Your task to perform on an android device: turn off picture-in-picture Image 0: 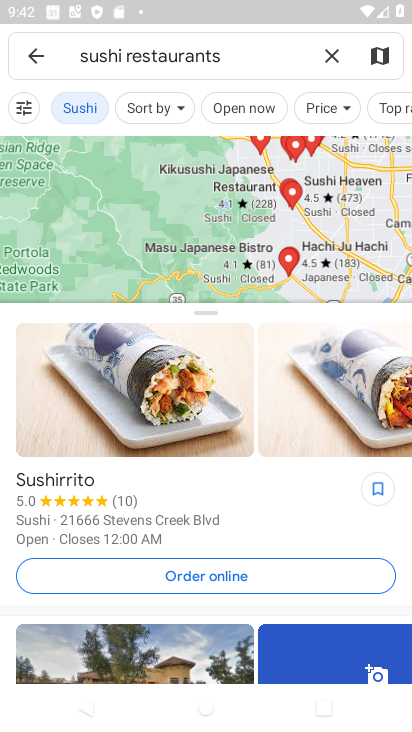
Step 0: press home button
Your task to perform on an android device: turn off picture-in-picture Image 1: 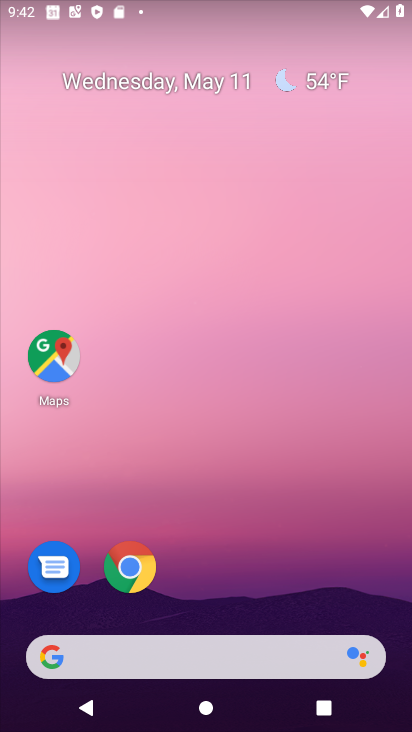
Step 1: click (143, 567)
Your task to perform on an android device: turn off picture-in-picture Image 2: 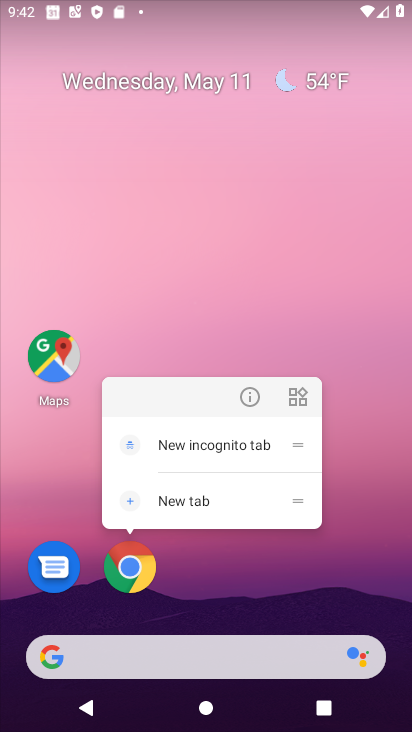
Step 2: click (246, 395)
Your task to perform on an android device: turn off picture-in-picture Image 3: 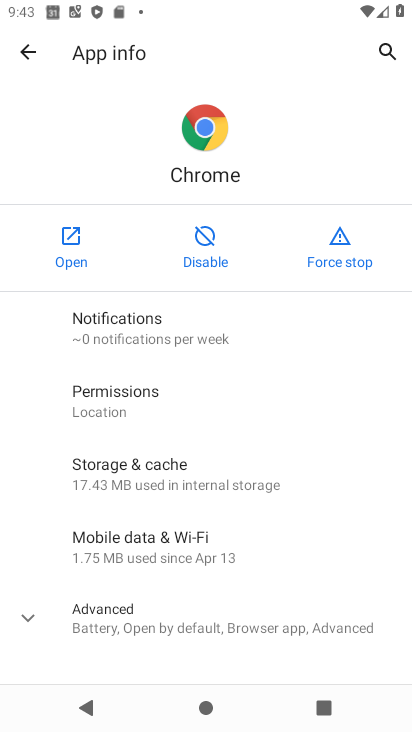
Step 3: click (113, 634)
Your task to perform on an android device: turn off picture-in-picture Image 4: 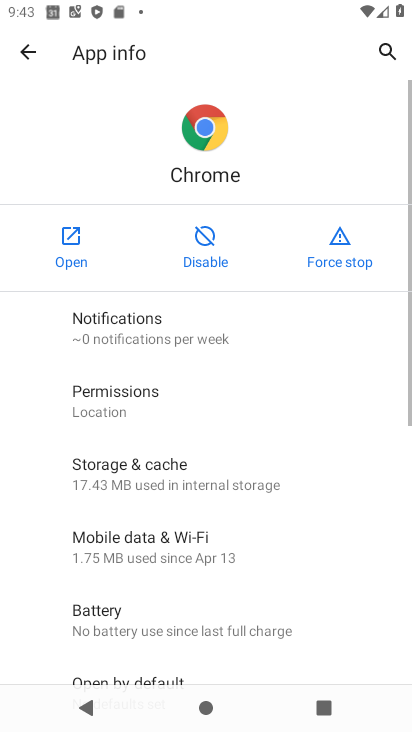
Step 4: drag from (135, 587) to (234, 134)
Your task to perform on an android device: turn off picture-in-picture Image 5: 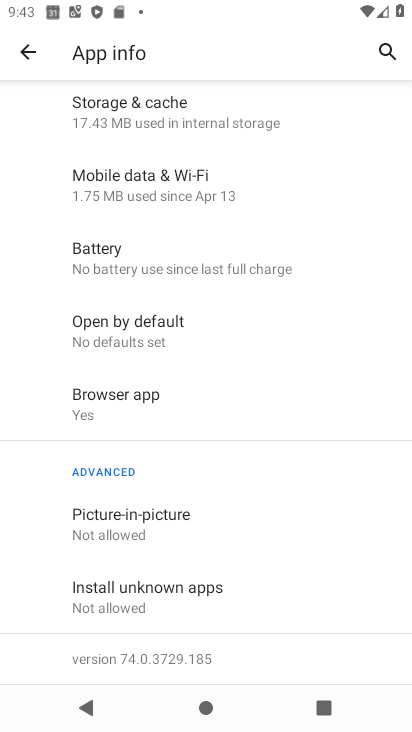
Step 5: click (161, 532)
Your task to perform on an android device: turn off picture-in-picture Image 6: 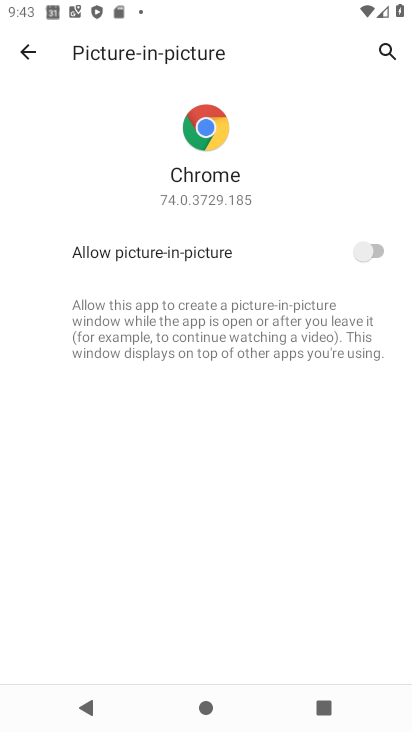
Step 6: task complete